Your task to perform on an android device: See recent photos Image 0: 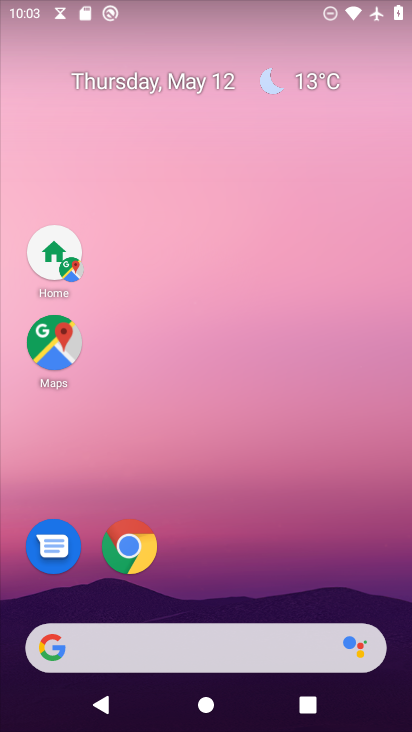
Step 0: press home button
Your task to perform on an android device: See recent photos Image 1: 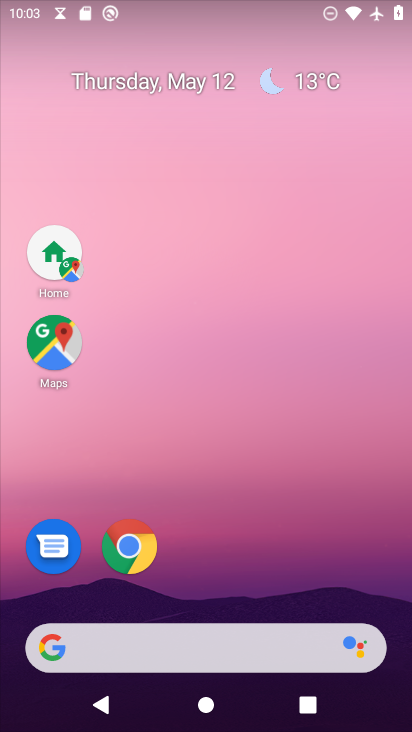
Step 1: drag from (230, 623) to (344, 138)
Your task to perform on an android device: See recent photos Image 2: 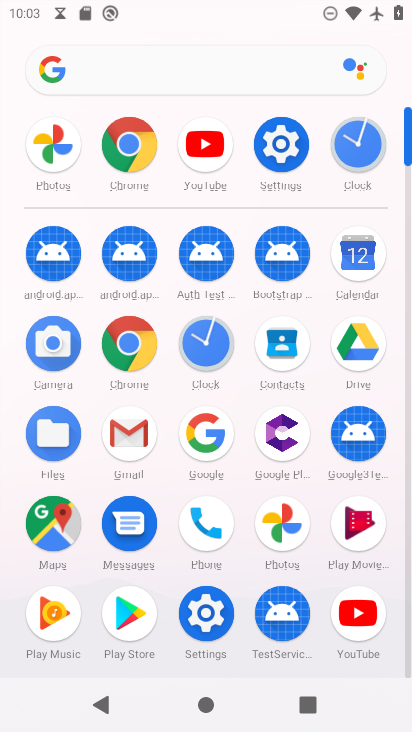
Step 2: click (297, 523)
Your task to perform on an android device: See recent photos Image 3: 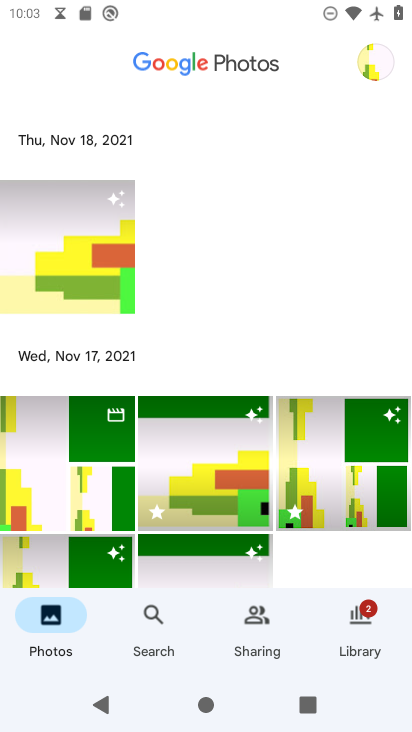
Step 3: click (161, 620)
Your task to perform on an android device: See recent photos Image 4: 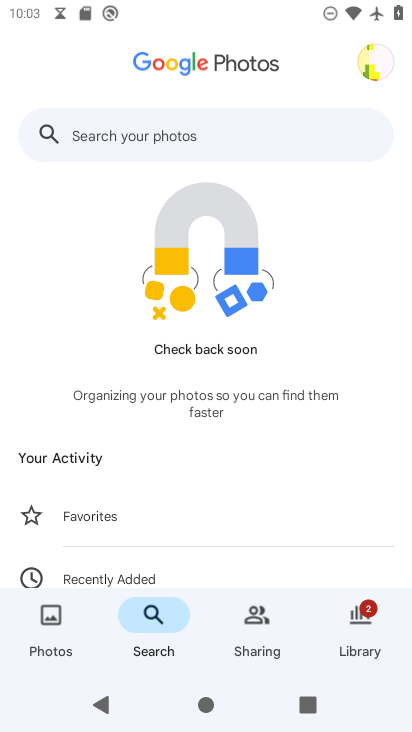
Step 4: drag from (163, 499) to (279, 176)
Your task to perform on an android device: See recent photos Image 5: 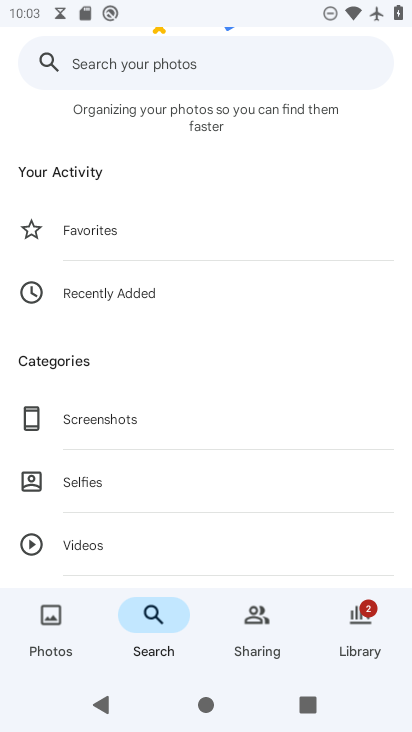
Step 5: click (126, 292)
Your task to perform on an android device: See recent photos Image 6: 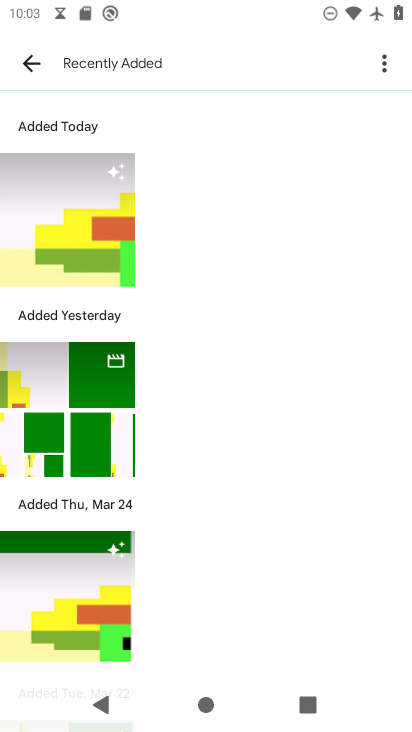
Step 6: task complete